Your task to perform on an android device: allow notifications from all sites in the chrome app Image 0: 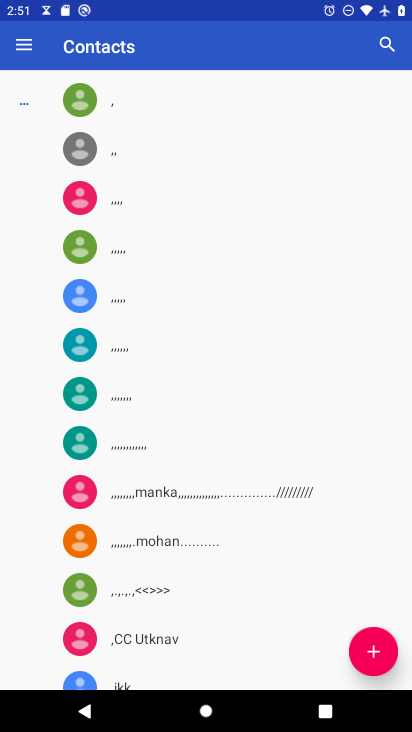
Step 0: press home button
Your task to perform on an android device: allow notifications from all sites in the chrome app Image 1: 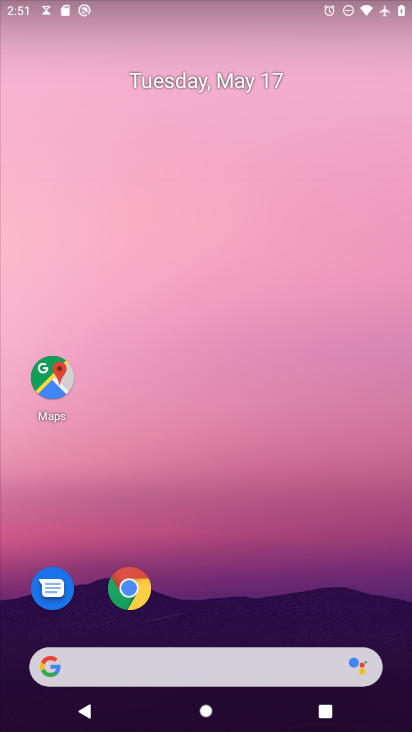
Step 1: drag from (200, 597) to (139, 143)
Your task to perform on an android device: allow notifications from all sites in the chrome app Image 2: 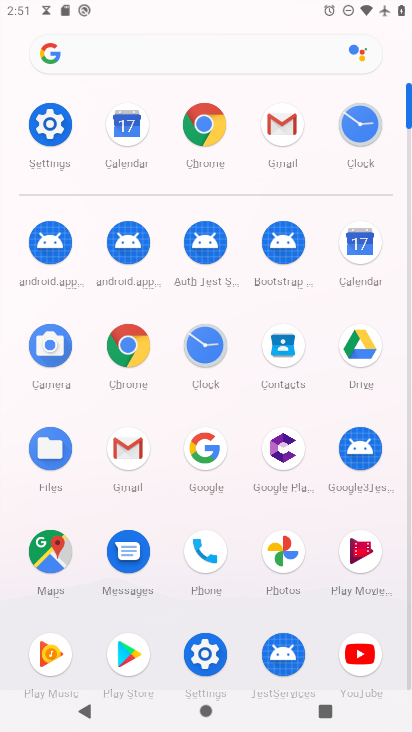
Step 2: click (204, 128)
Your task to perform on an android device: allow notifications from all sites in the chrome app Image 3: 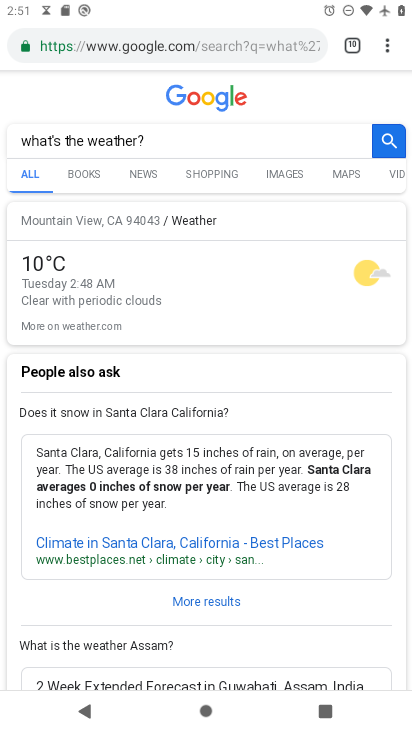
Step 3: click (383, 52)
Your task to perform on an android device: allow notifications from all sites in the chrome app Image 4: 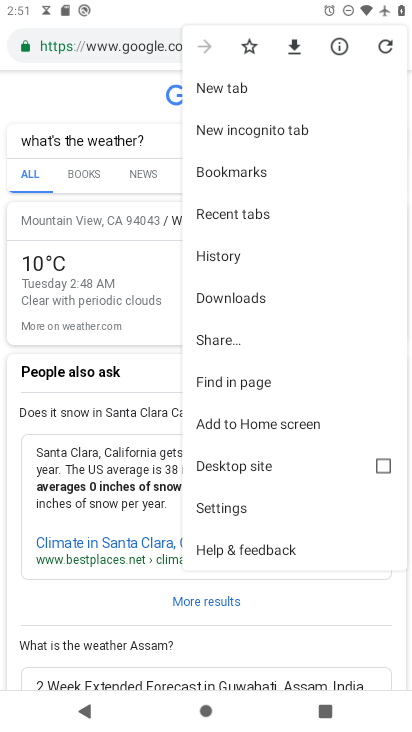
Step 4: click (207, 511)
Your task to perform on an android device: allow notifications from all sites in the chrome app Image 5: 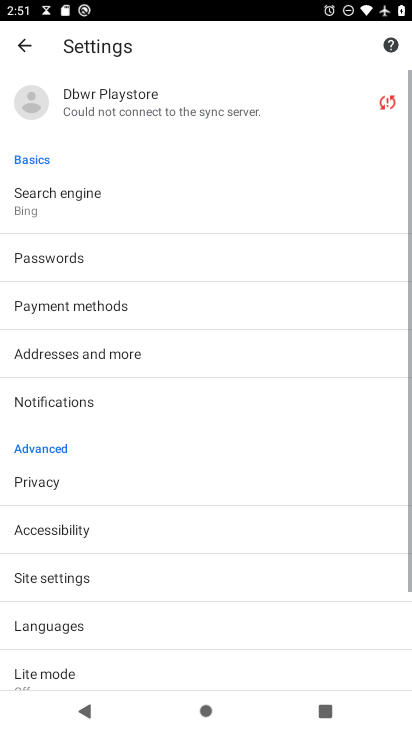
Step 5: click (35, 406)
Your task to perform on an android device: allow notifications from all sites in the chrome app Image 6: 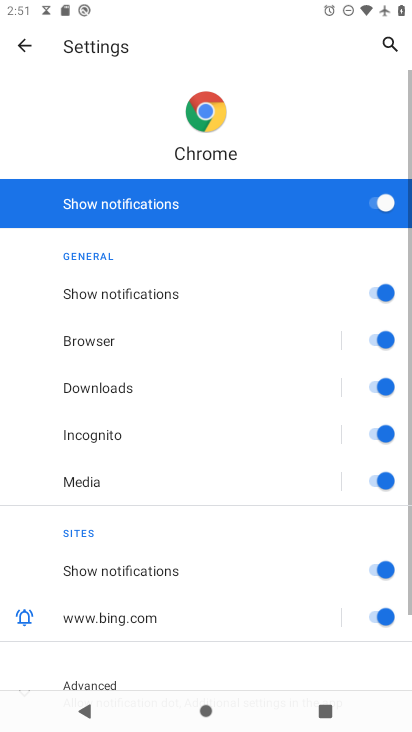
Step 6: task complete